Your task to perform on an android device: clear history in the chrome app Image 0: 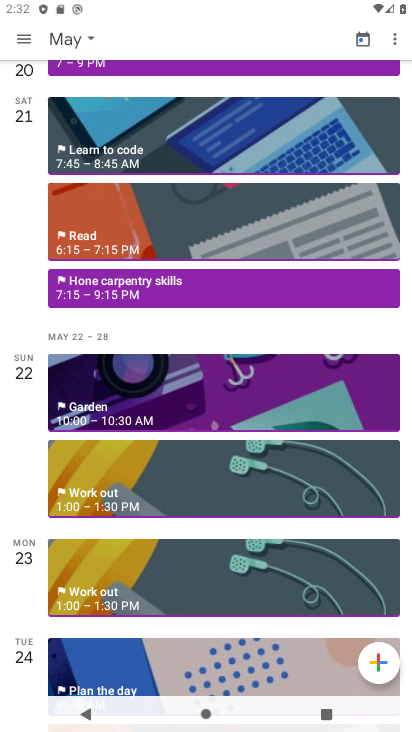
Step 0: press home button
Your task to perform on an android device: clear history in the chrome app Image 1: 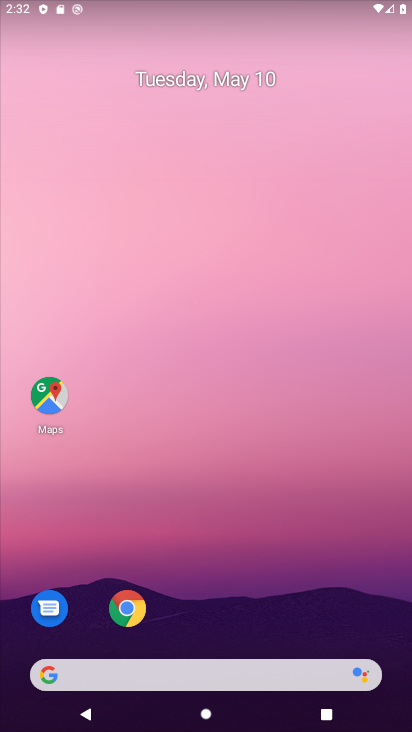
Step 1: click (129, 609)
Your task to perform on an android device: clear history in the chrome app Image 2: 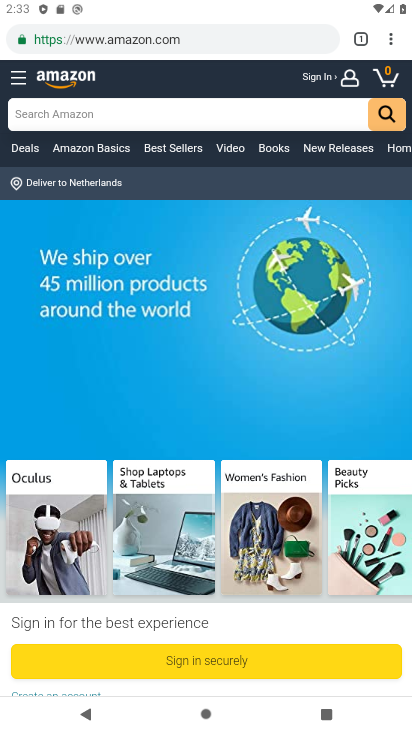
Step 2: click (390, 42)
Your task to perform on an android device: clear history in the chrome app Image 3: 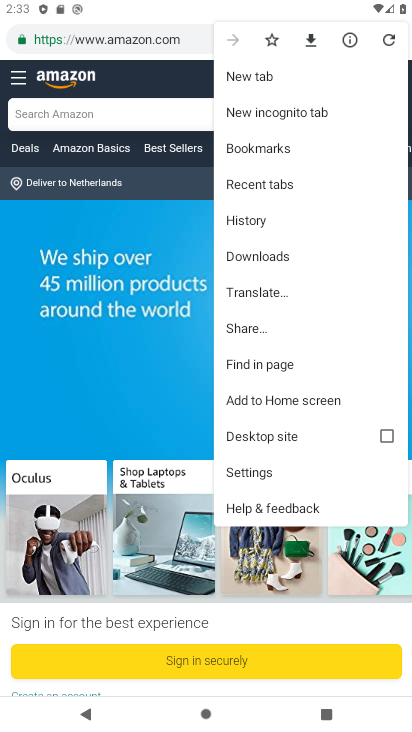
Step 3: click (245, 216)
Your task to perform on an android device: clear history in the chrome app Image 4: 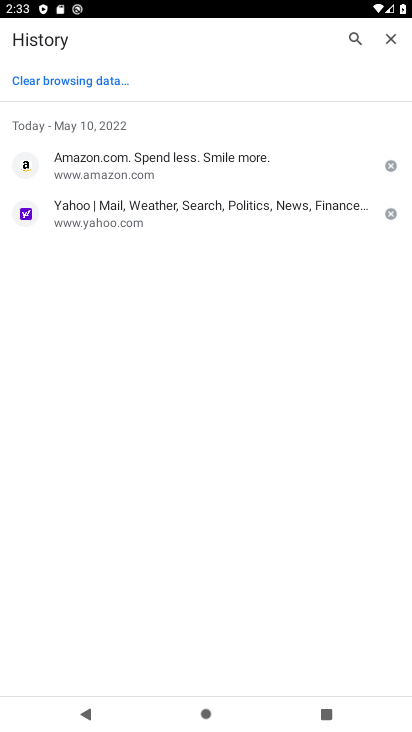
Step 4: click (52, 79)
Your task to perform on an android device: clear history in the chrome app Image 5: 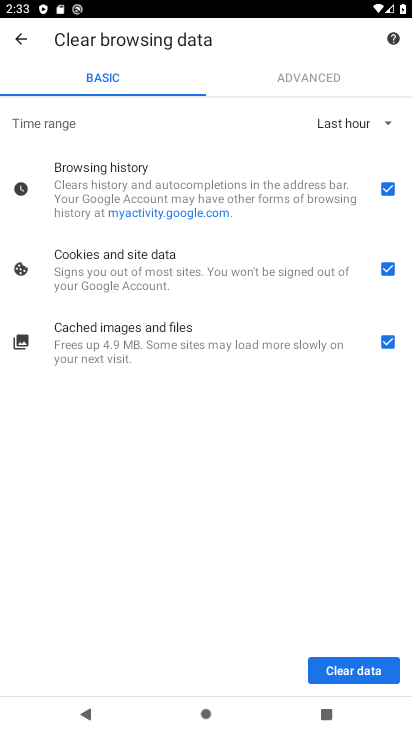
Step 5: click (385, 269)
Your task to perform on an android device: clear history in the chrome app Image 6: 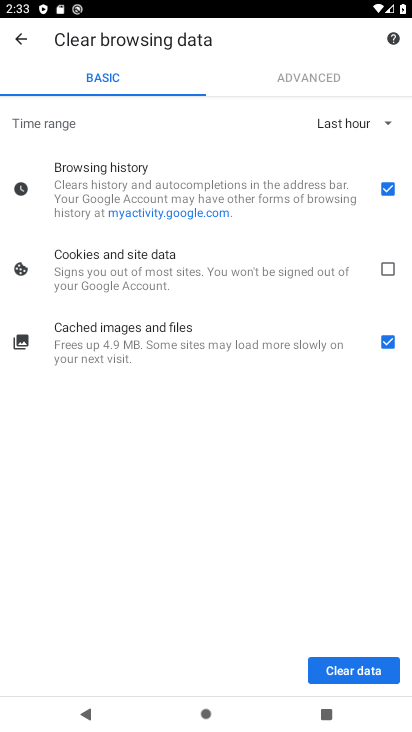
Step 6: click (388, 339)
Your task to perform on an android device: clear history in the chrome app Image 7: 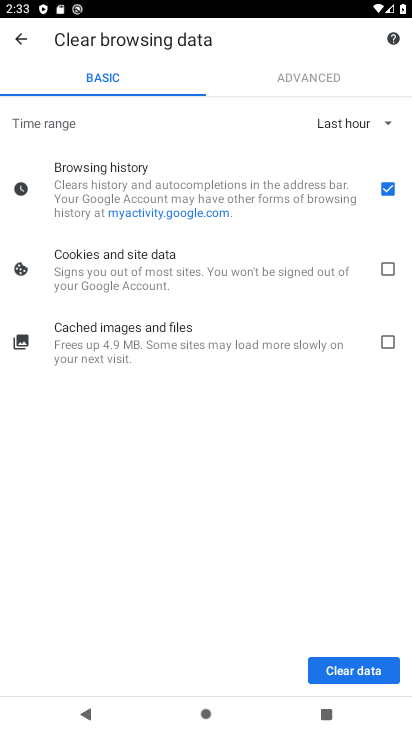
Step 7: click (353, 671)
Your task to perform on an android device: clear history in the chrome app Image 8: 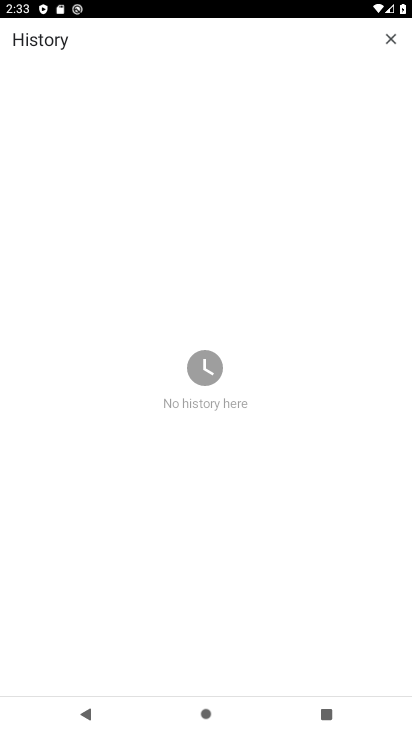
Step 8: task complete